Your task to perform on an android device: change the clock display to show seconds Image 0: 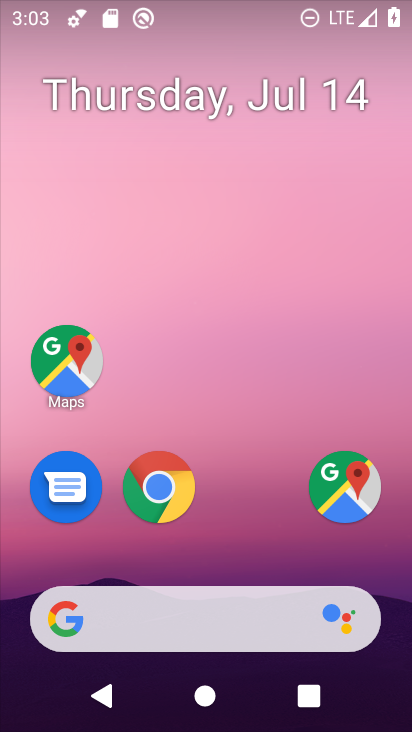
Step 0: drag from (261, 557) to (333, 146)
Your task to perform on an android device: change the clock display to show seconds Image 1: 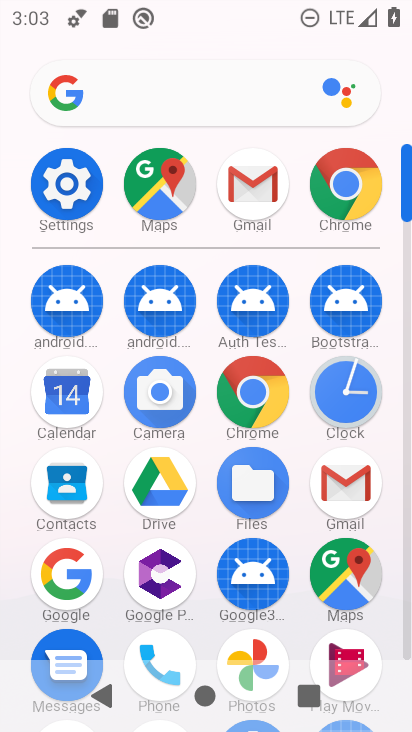
Step 1: click (357, 390)
Your task to perform on an android device: change the clock display to show seconds Image 2: 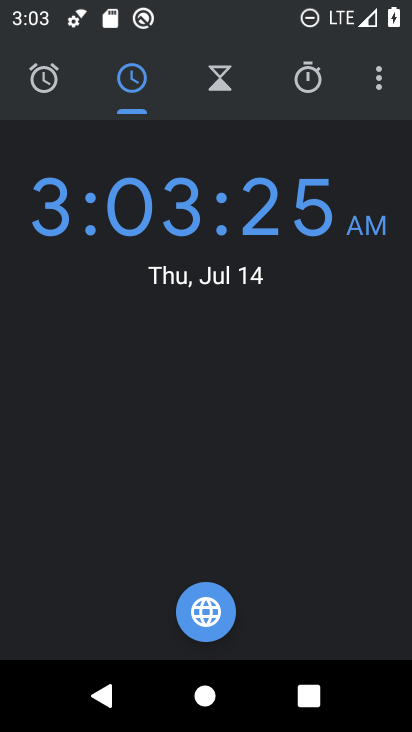
Step 2: click (373, 94)
Your task to perform on an android device: change the clock display to show seconds Image 3: 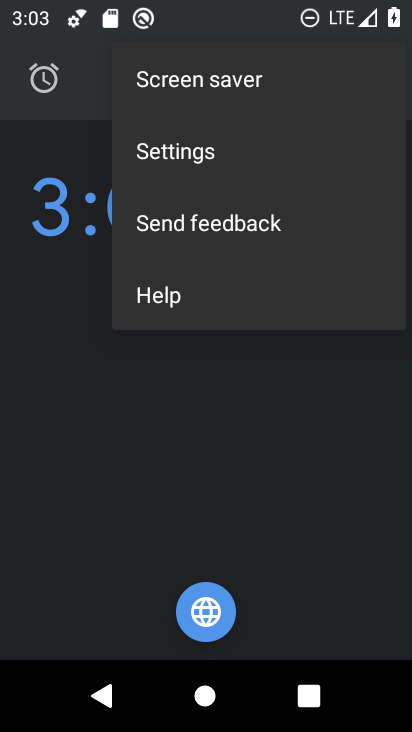
Step 3: click (217, 164)
Your task to perform on an android device: change the clock display to show seconds Image 4: 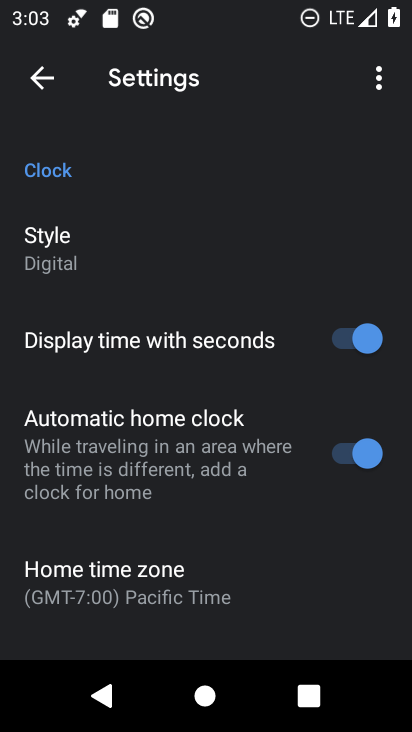
Step 4: task complete